Your task to perform on an android device: turn on notifications settings in the gmail app Image 0: 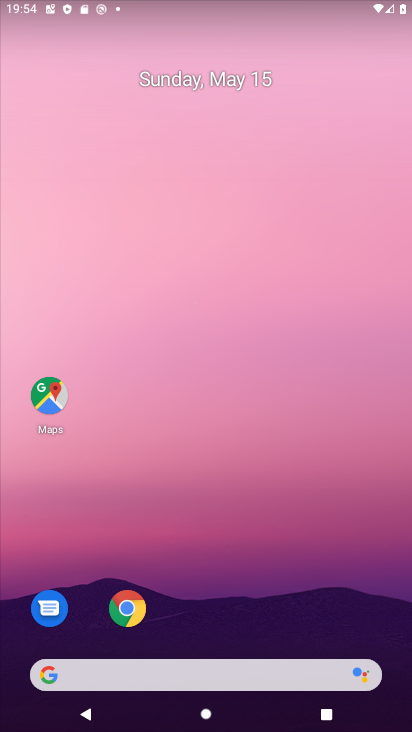
Step 0: drag from (240, 603) to (272, 49)
Your task to perform on an android device: turn on notifications settings in the gmail app Image 1: 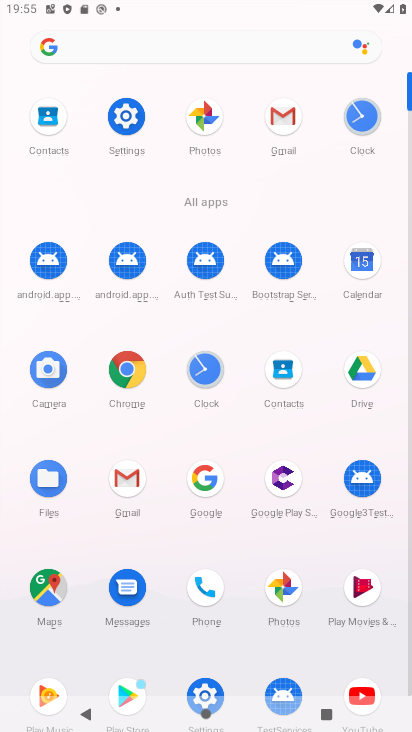
Step 1: click (265, 129)
Your task to perform on an android device: turn on notifications settings in the gmail app Image 2: 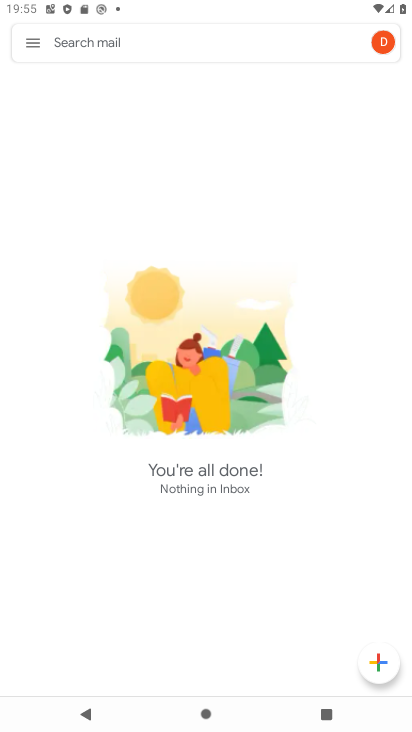
Step 2: click (34, 44)
Your task to perform on an android device: turn on notifications settings in the gmail app Image 3: 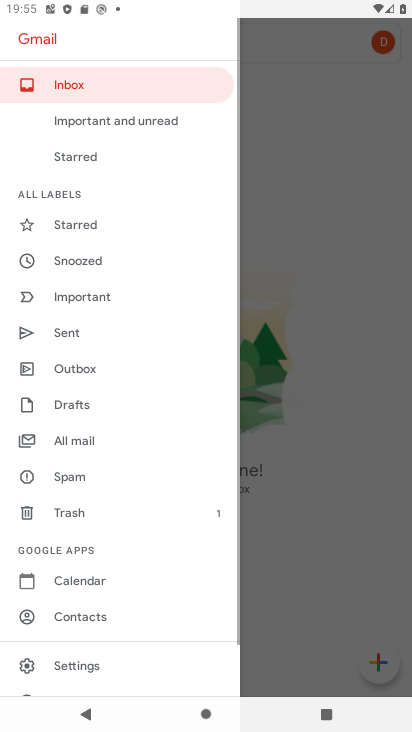
Step 3: click (63, 656)
Your task to perform on an android device: turn on notifications settings in the gmail app Image 4: 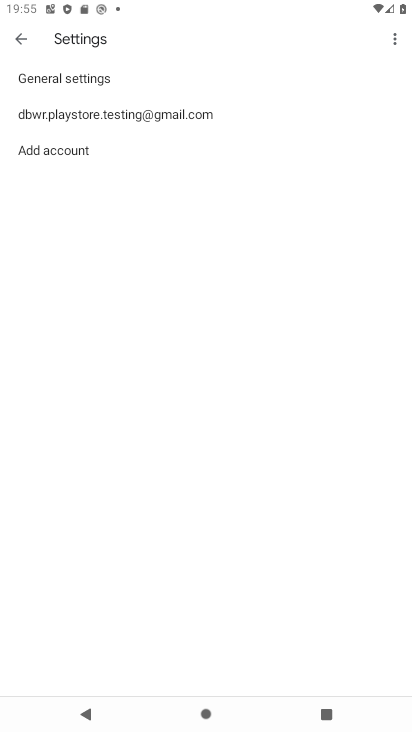
Step 4: click (64, 109)
Your task to perform on an android device: turn on notifications settings in the gmail app Image 5: 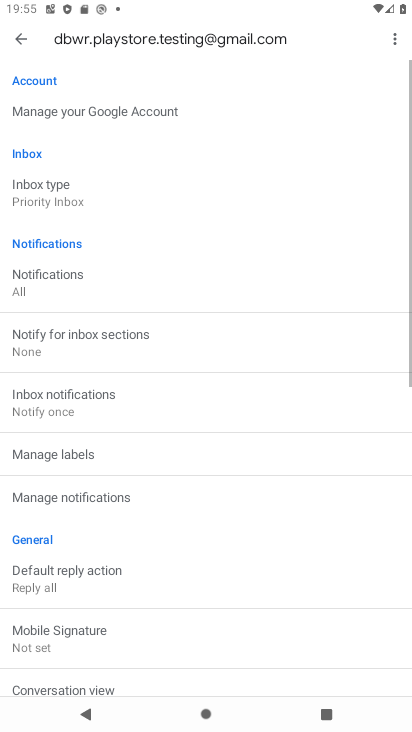
Step 5: click (48, 298)
Your task to perform on an android device: turn on notifications settings in the gmail app Image 6: 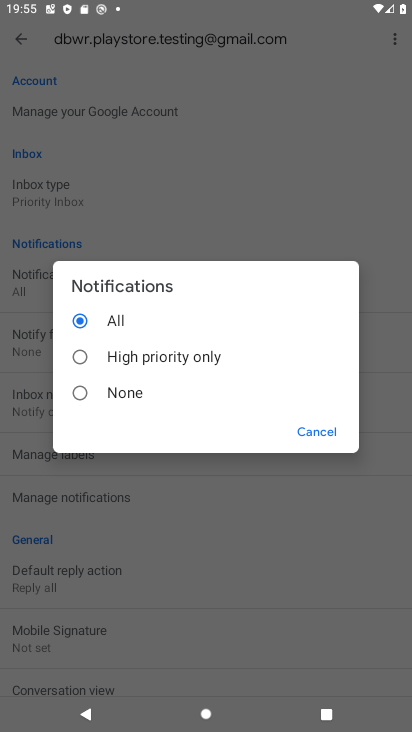
Step 6: task complete